Your task to perform on an android device: open sync settings in chrome Image 0: 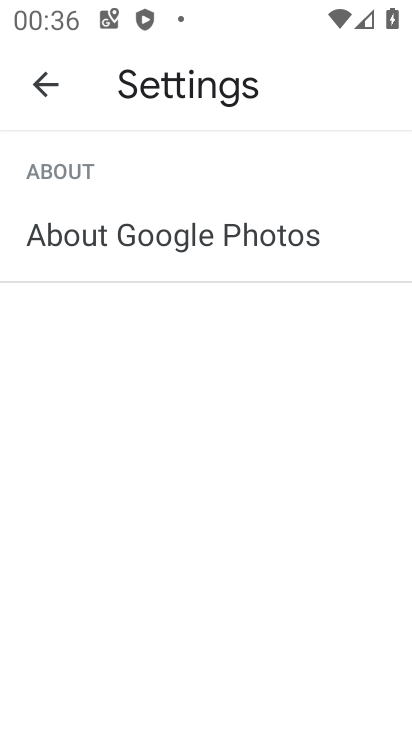
Step 0: press home button
Your task to perform on an android device: open sync settings in chrome Image 1: 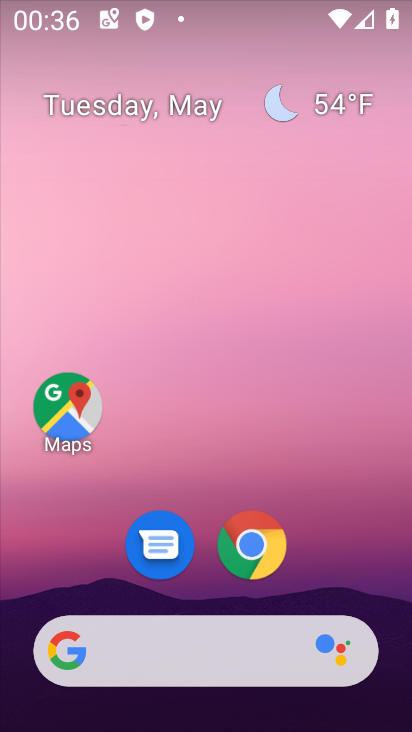
Step 1: click (271, 534)
Your task to perform on an android device: open sync settings in chrome Image 2: 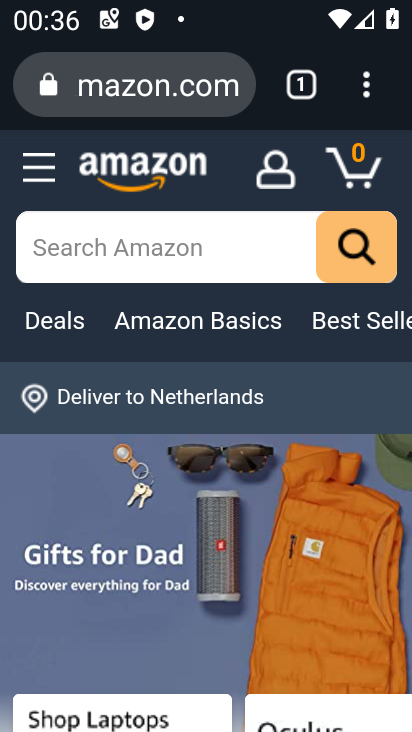
Step 2: click (374, 75)
Your task to perform on an android device: open sync settings in chrome Image 3: 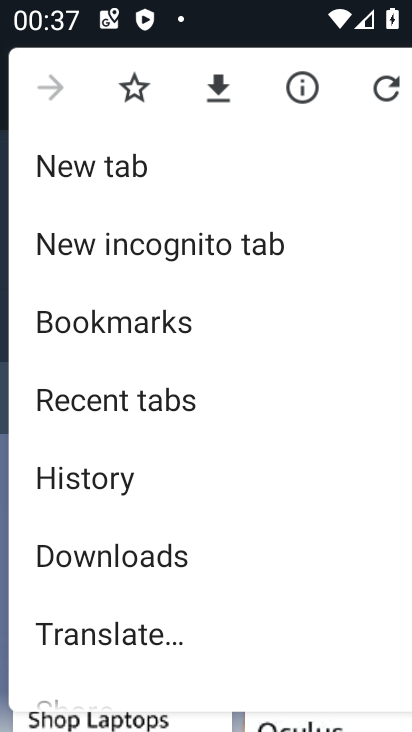
Step 3: drag from (235, 608) to (195, 156)
Your task to perform on an android device: open sync settings in chrome Image 4: 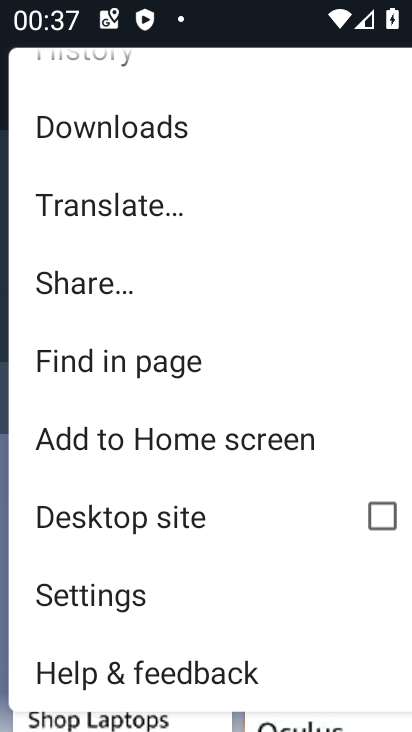
Step 4: click (150, 580)
Your task to perform on an android device: open sync settings in chrome Image 5: 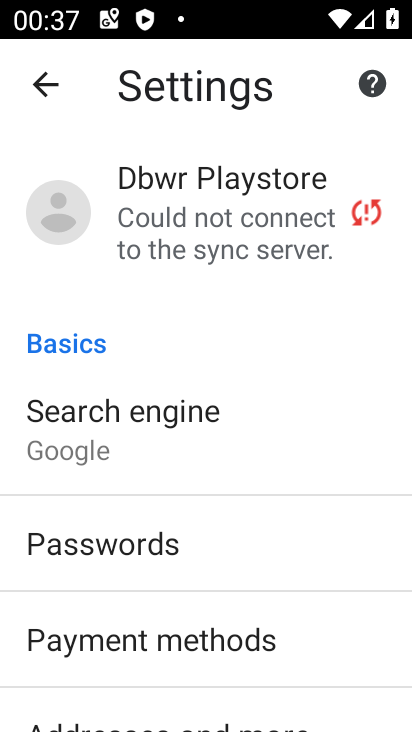
Step 5: click (148, 235)
Your task to perform on an android device: open sync settings in chrome Image 6: 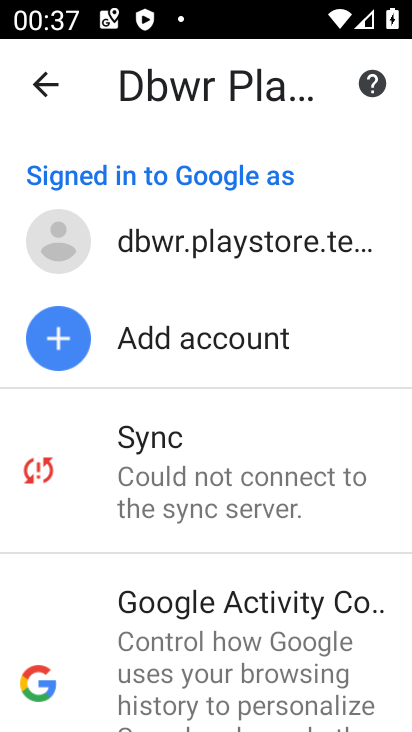
Step 6: click (164, 485)
Your task to perform on an android device: open sync settings in chrome Image 7: 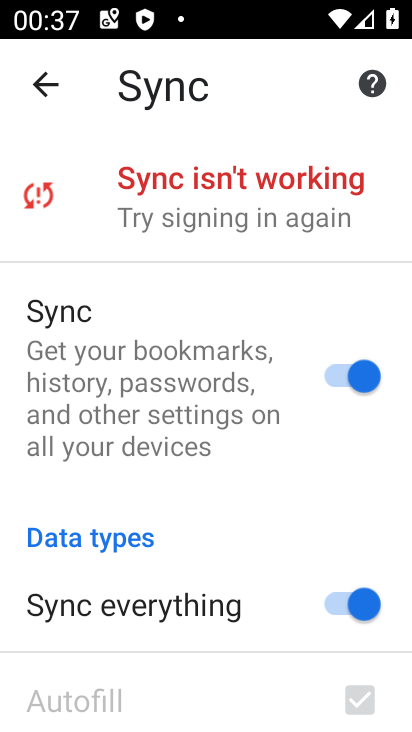
Step 7: task complete